Your task to perform on an android device: Is it going to rain tomorrow? Image 0: 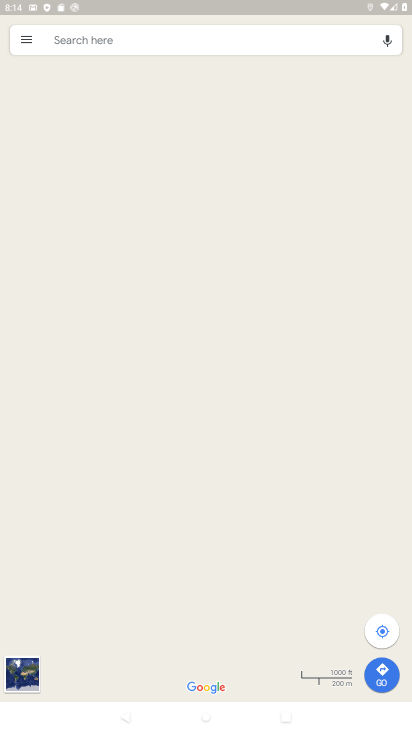
Step 0: press home button
Your task to perform on an android device: Is it going to rain tomorrow? Image 1: 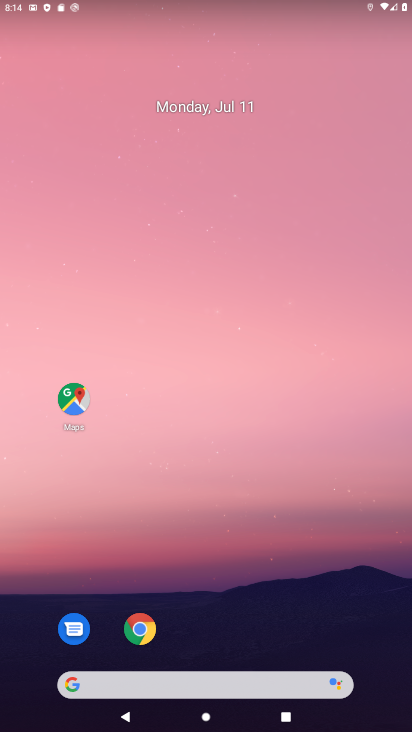
Step 1: click (177, 683)
Your task to perform on an android device: Is it going to rain tomorrow? Image 2: 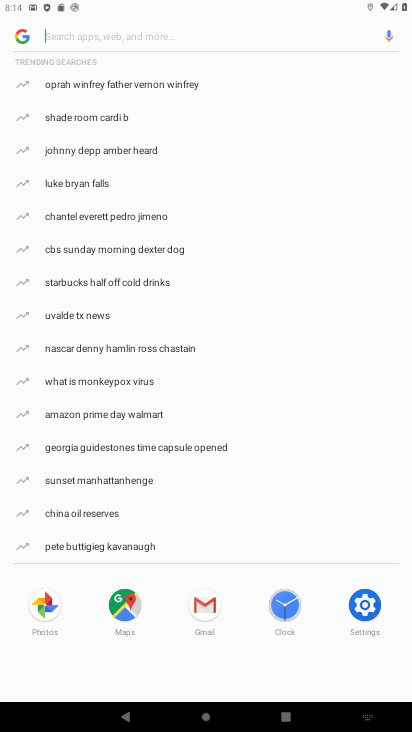
Step 2: type "weather"
Your task to perform on an android device: Is it going to rain tomorrow? Image 3: 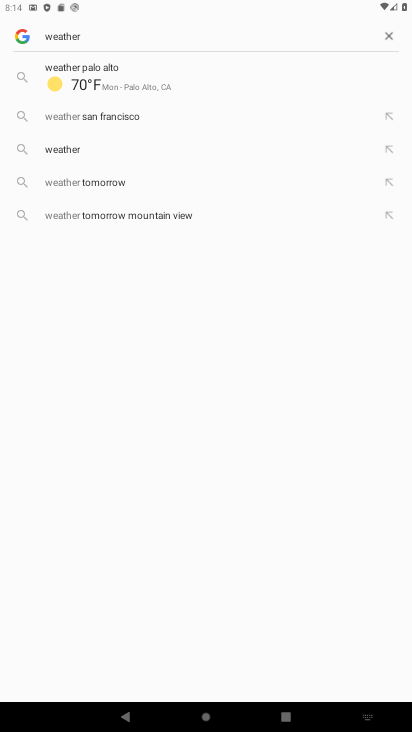
Step 3: click (80, 157)
Your task to perform on an android device: Is it going to rain tomorrow? Image 4: 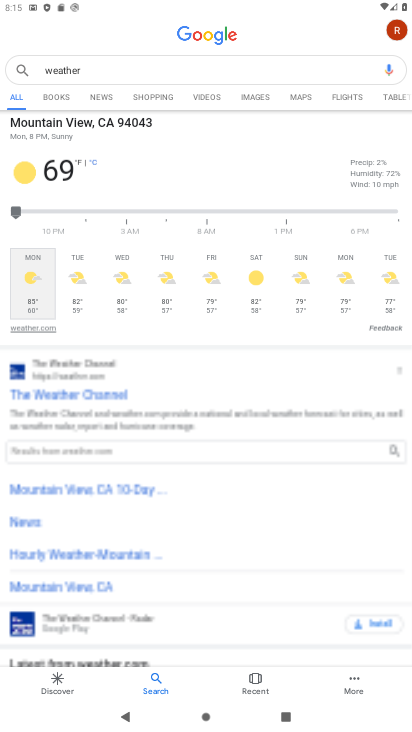
Step 4: click (107, 392)
Your task to perform on an android device: Is it going to rain tomorrow? Image 5: 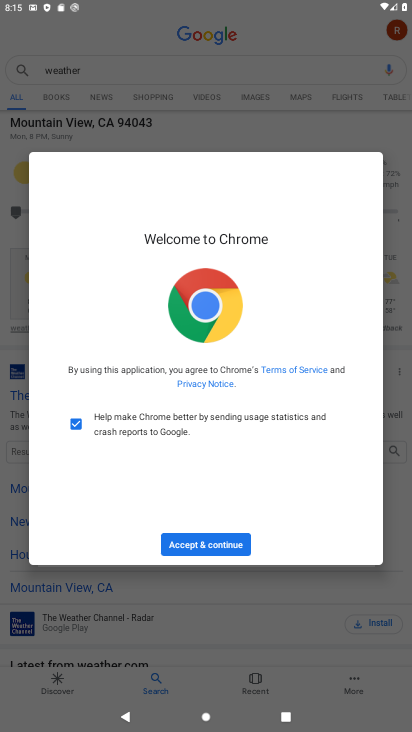
Step 5: click (213, 573)
Your task to perform on an android device: Is it going to rain tomorrow? Image 6: 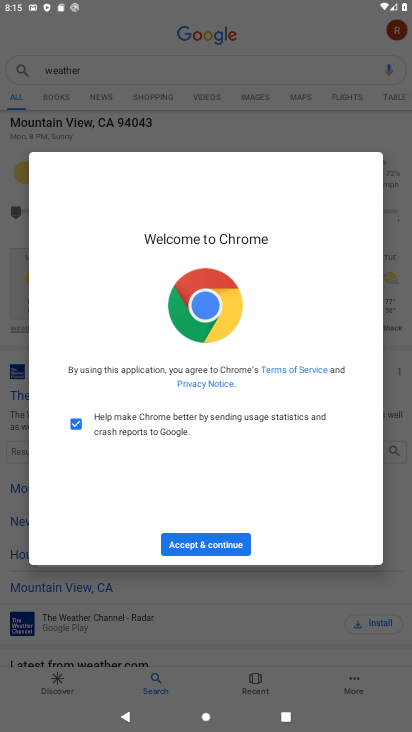
Step 6: task complete